Your task to perform on an android device: check out phone information Image 0: 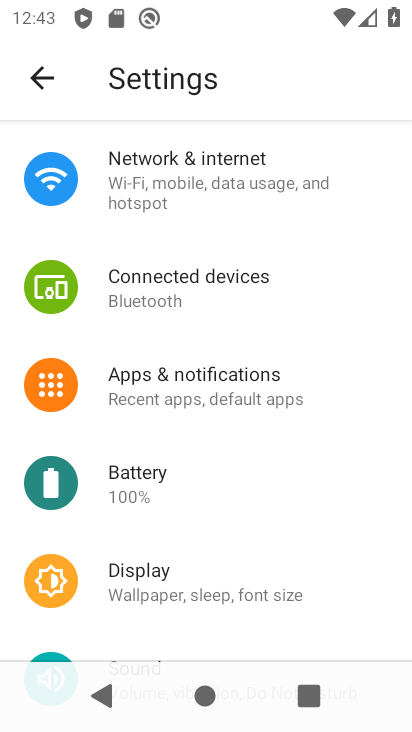
Step 0: drag from (197, 492) to (245, 30)
Your task to perform on an android device: check out phone information Image 1: 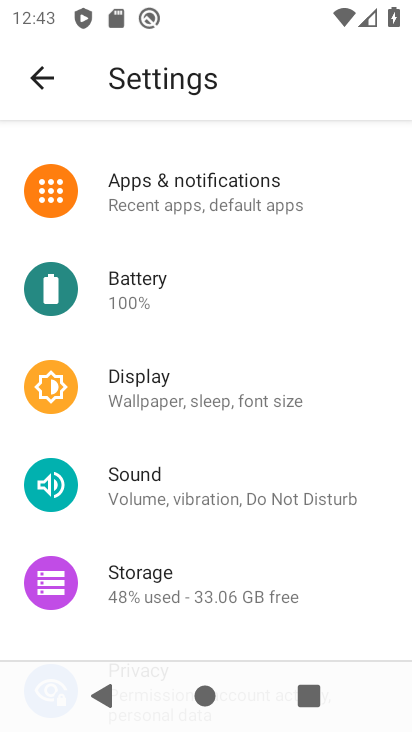
Step 1: drag from (217, 622) to (235, 31)
Your task to perform on an android device: check out phone information Image 2: 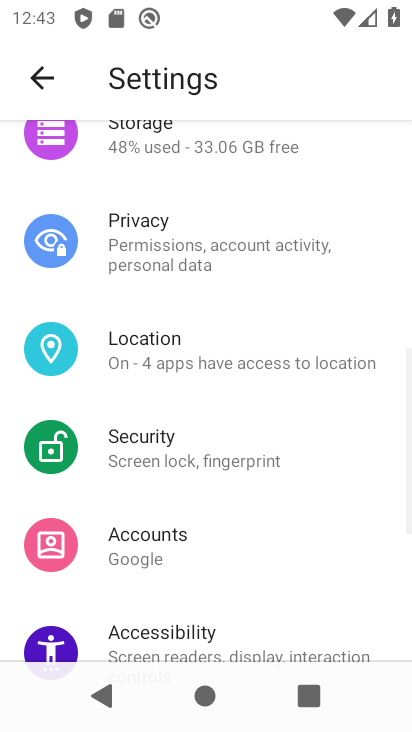
Step 2: drag from (219, 641) to (273, 253)
Your task to perform on an android device: check out phone information Image 3: 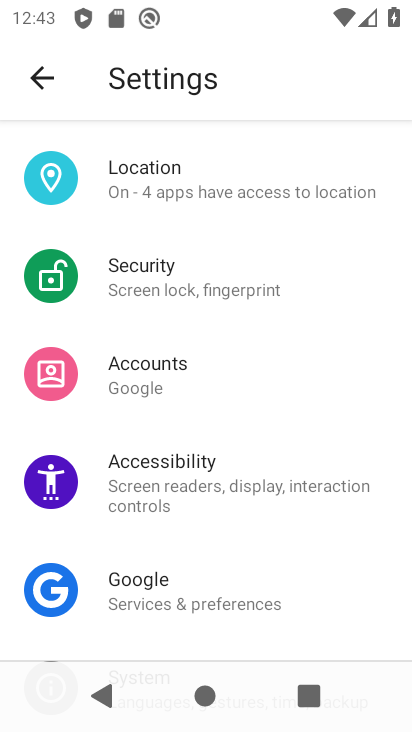
Step 3: drag from (265, 650) to (329, 28)
Your task to perform on an android device: check out phone information Image 4: 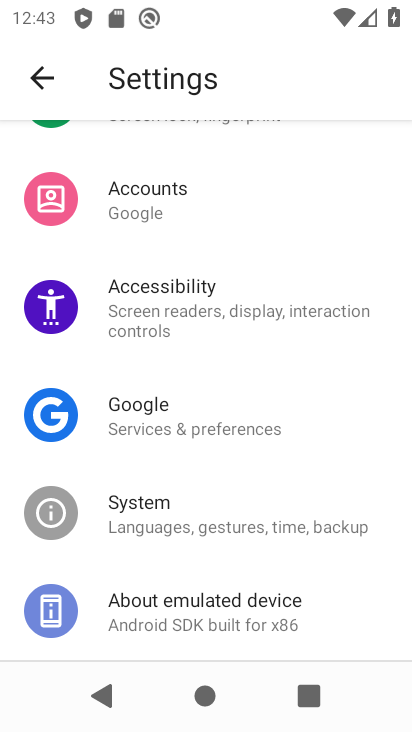
Step 4: click (243, 621)
Your task to perform on an android device: check out phone information Image 5: 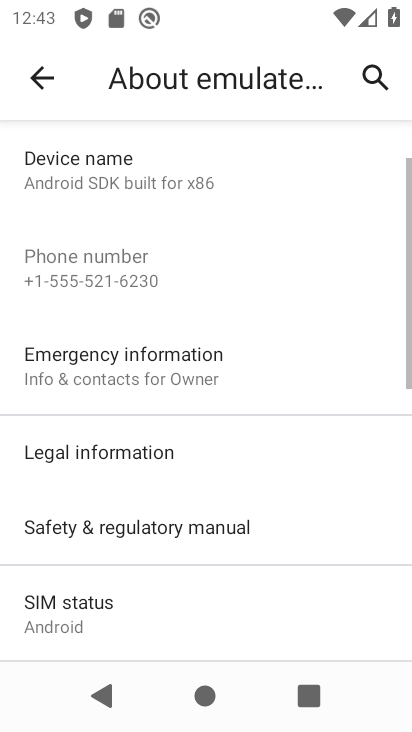
Step 5: task complete